Your task to perform on an android device: What's on my calendar tomorrow? Image 0: 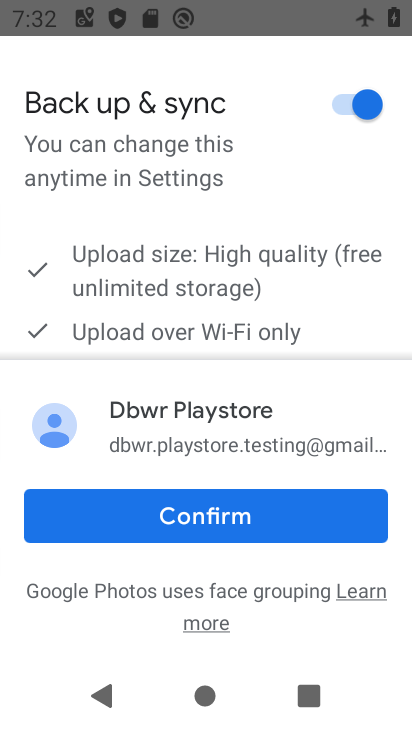
Step 0: press home button
Your task to perform on an android device: What's on my calendar tomorrow? Image 1: 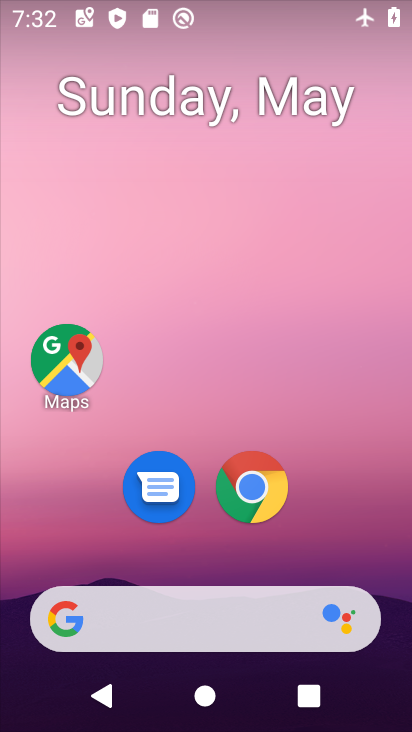
Step 1: drag from (352, 558) to (360, 179)
Your task to perform on an android device: What's on my calendar tomorrow? Image 2: 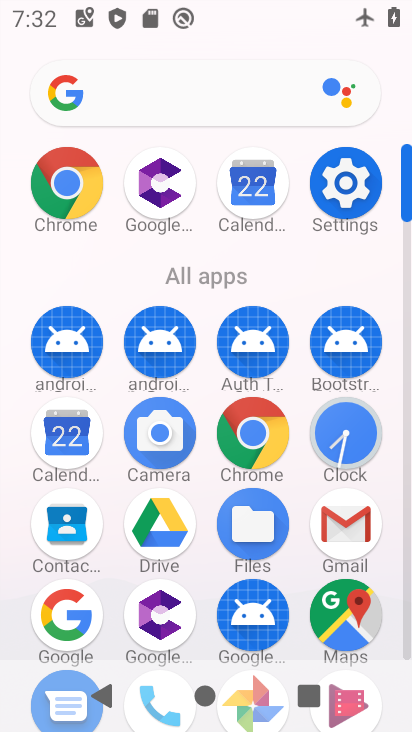
Step 2: click (95, 429)
Your task to perform on an android device: What's on my calendar tomorrow? Image 3: 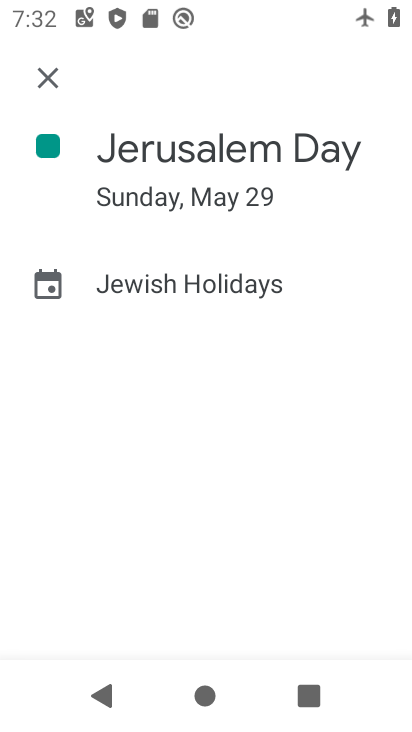
Step 3: click (44, 74)
Your task to perform on an android device: What's on my calendar tomorrow? Image 4: 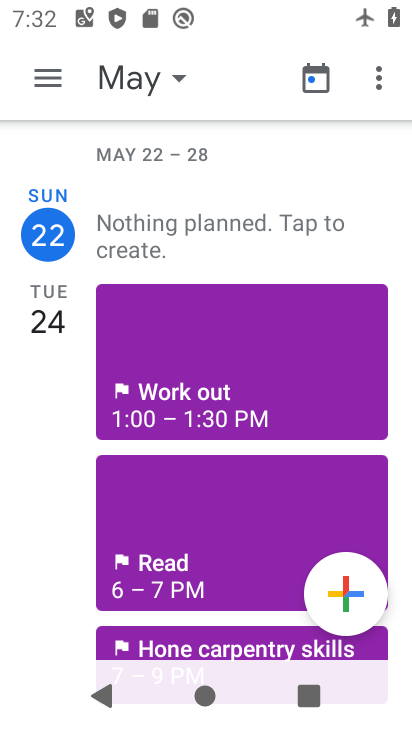
Step 4: click (175, 74)
Your task to perform on an android device: What's on my calendar tomorrow? Image 5: 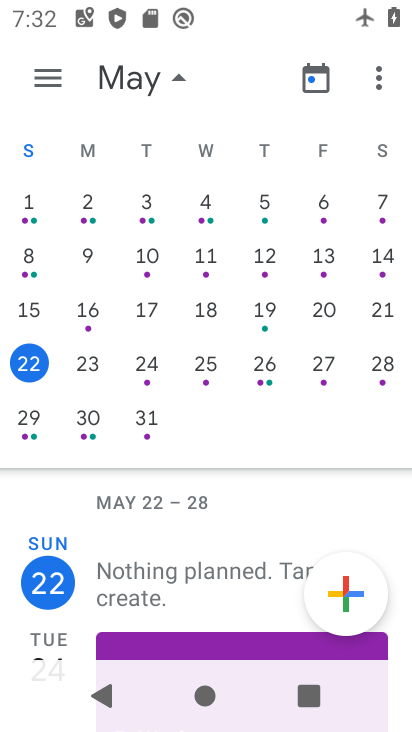
Step 5: click (148, 365)
Your task to perform on an android device: What's on my calendar tomorrow? Image 6: 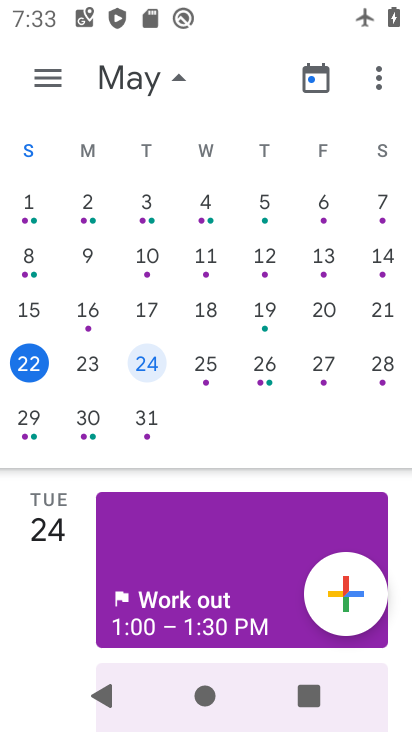
Step 6: click (187, 590)
Your task to perform on an android device: What's on my calendar tomorrow? Image 7: 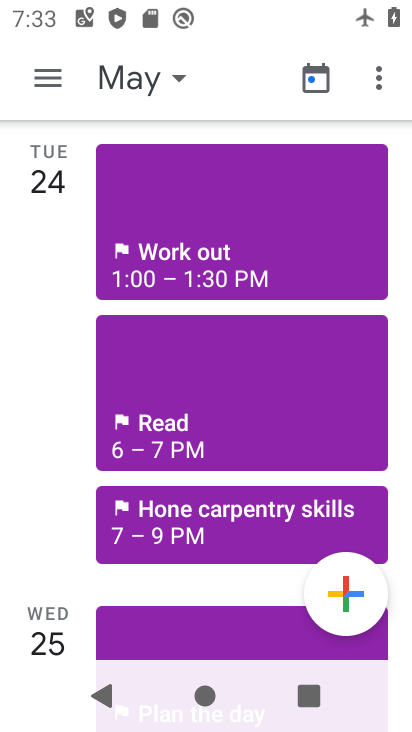
Step 7: task complete